Your task to perform on an android device: turn smart compose on in the gmail app Image 0: 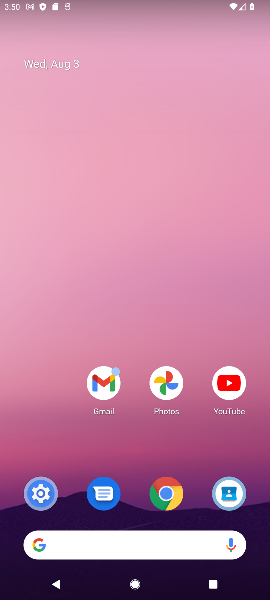
Step 0: press home button
Your task to perform on an android device: turn smart compose on in the gmail app Image 1: 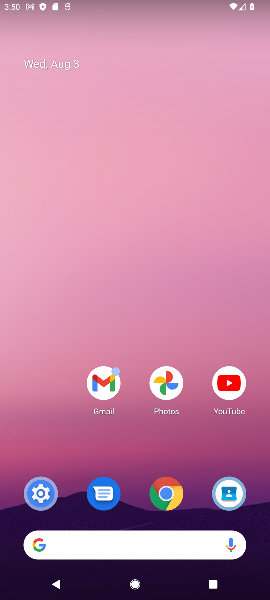
Step 1: drag from (64, 442) to (65, 126)
Your task to perform on an android device: turn smart compose on in the gmail app Image 2: 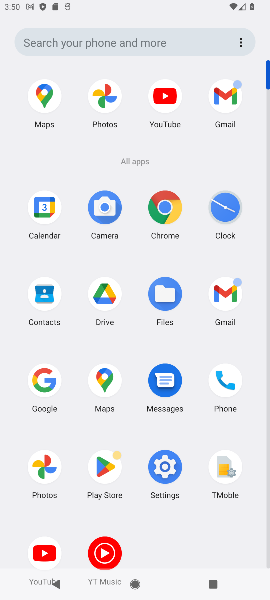
Step 2: click (227, 297)
Your task to perform on an android device: turn smart compose on in the gmail app Image 3: 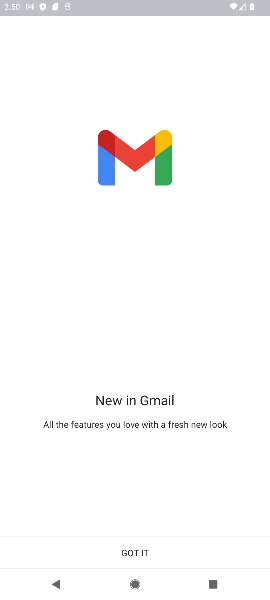
Step 3: click (188, 549)
Your task to perform on an android device: turn smart compose on in the gmail app Image 4: 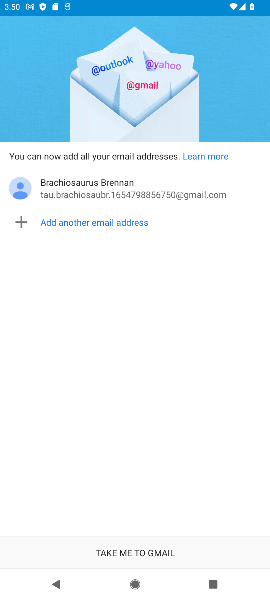
Step 4: click (187, 546)
Your task to perform on an android device: turn smart compose on in the gmail app Image 5: 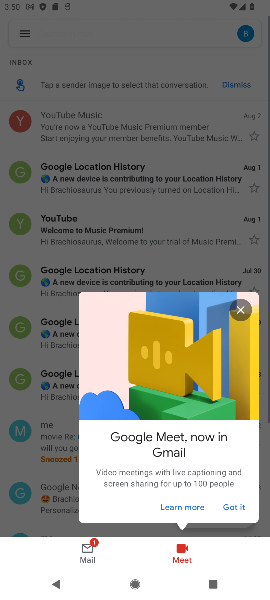
Step 5: click (243, 504)
Your task to perform on an android device: turn smart compose on in the gmail app Image 6: 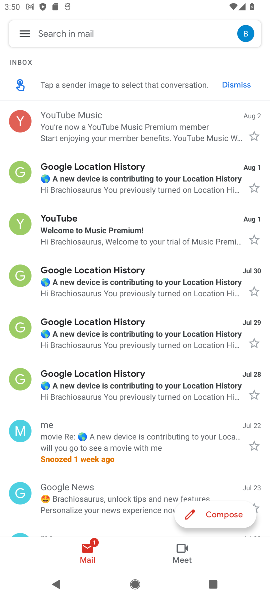
Step 6: click (21, 33)
Your task to perform on an android device: turn smart compose on in the gmail app Image 7: 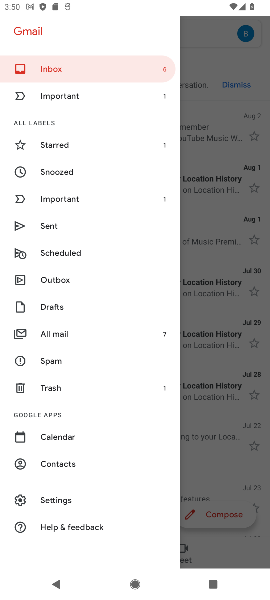
Step 7: click (90, 501)
Your task to perform on an android device: turn smart compose on in the gmail app Image 8: 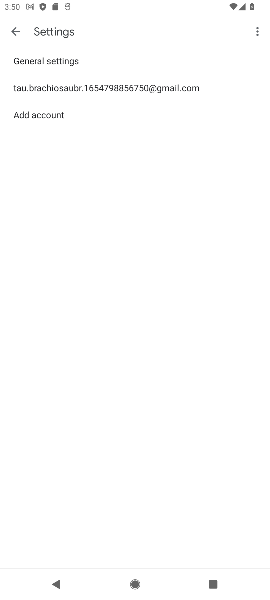
Step 8: click (146, 80)
Your task to perform on an android device: turn smart compose on in the gmail app Image 9: 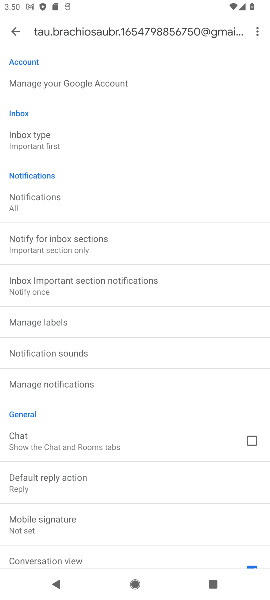
Step 9: task complete